Your task to perform on an android device: choose inbox layout in the gmail app Image 0: 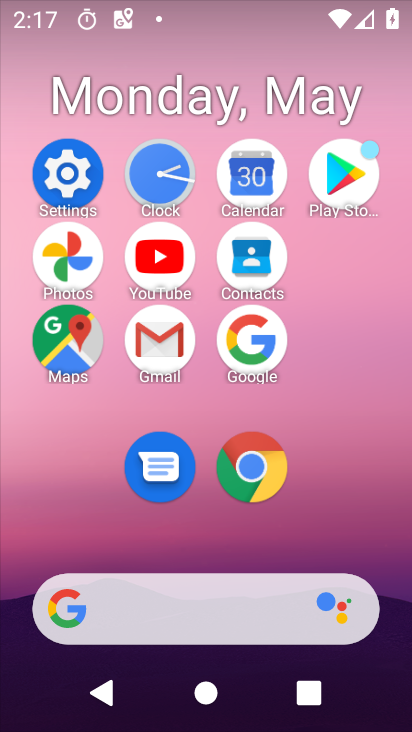
Step 0: click (189, 355)
Your task to perform on an android device: choose inbox layout in the gmail app Image 1: 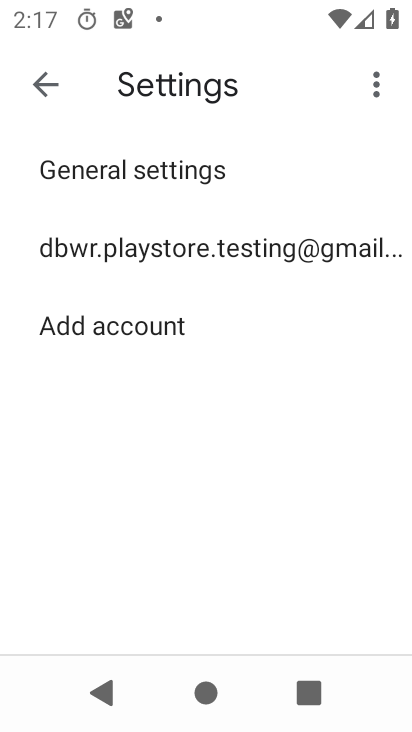
Step 1: click (46, 111)
Your task to perform on an android device: choose inbox layout in the gmail app Image 2: 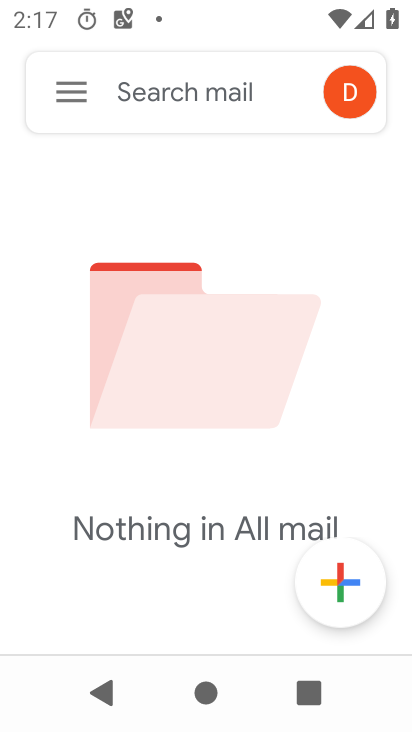
Step 2: click (74, 104)
Your task to perform on an android device: choose inbox layout in the gmail app Image 3: 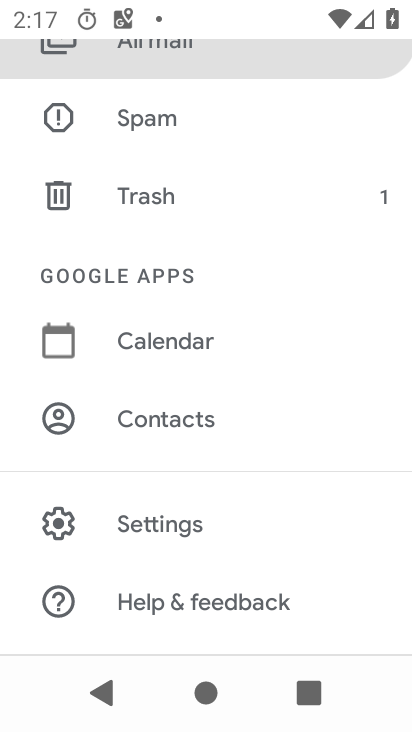
Step 3: click (207, 514)
Your task to perform on an android device: choose inbox layout in the gmail app Image 4: 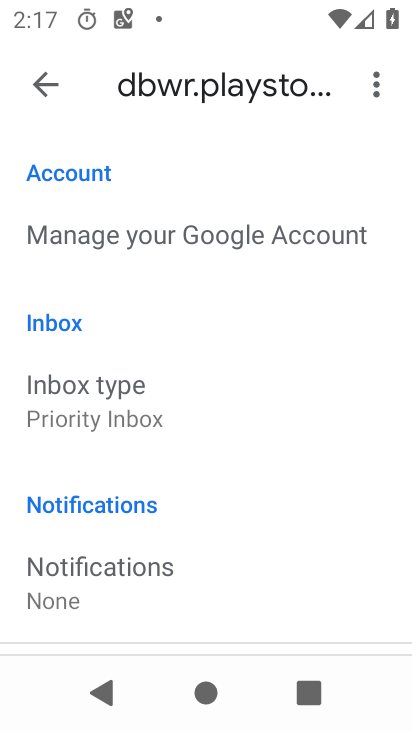
Step 4: click (167, 396)
Your task to perform on an android device: choose inbox layout in the gmail app Image 5: 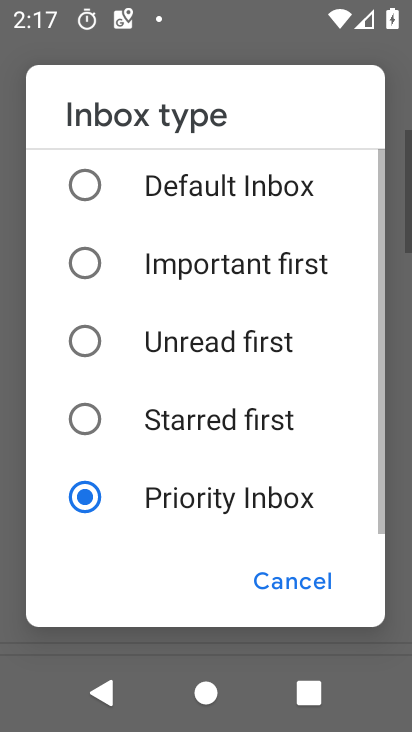
Step 5: task complete